Your task to perform on an android device: See recent photos Image 0: 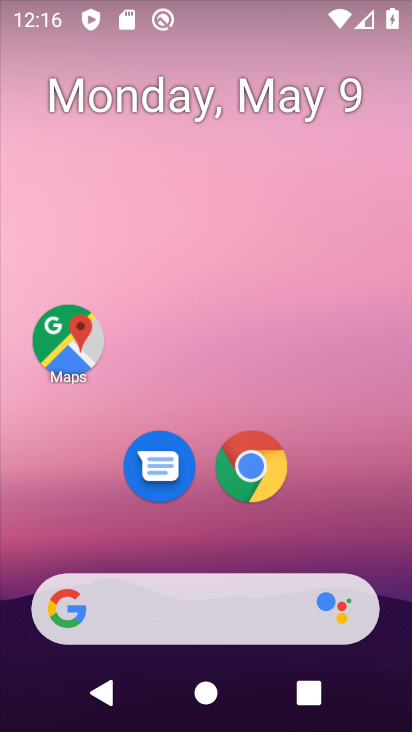
Step 0: drag from (360, 541) to (308, 108)
Your task to perform on an android device: See recent photos Image 1: 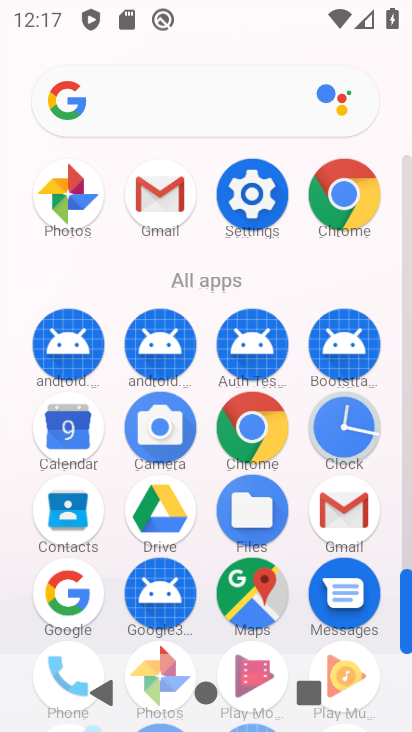
Step 1: click (76, 204)
Your task to perform on an android device: See recent photos Image 2: 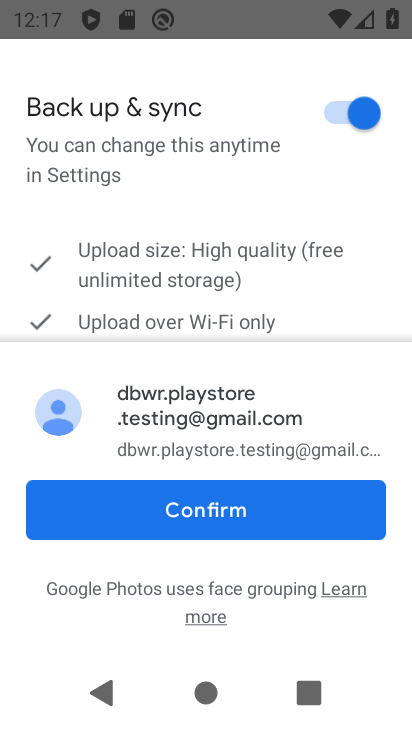
Step 2: click (217, 505)
Your task to perform on an android device: See recent photos Image 3: 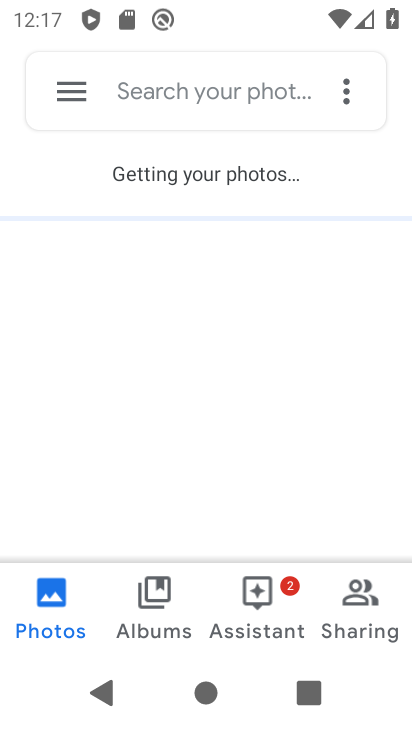
Step 3: task complete